Your task to perform on an android device: Go to battery settings Image 0: 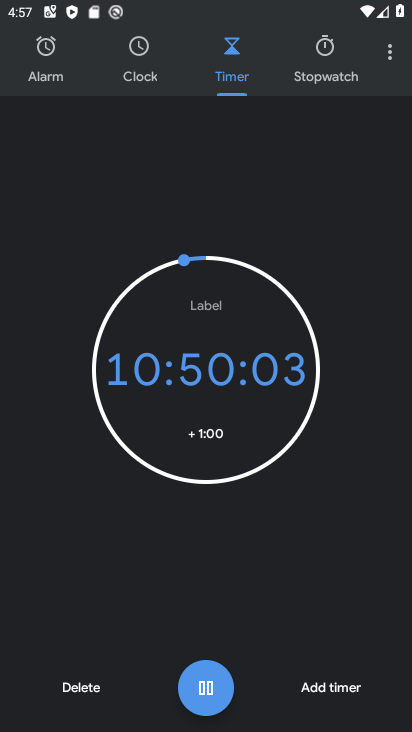
Step 0: drag from (294, 586) to (217, 212)
Your task to perform on an android device: Go to battery settings Image 1: 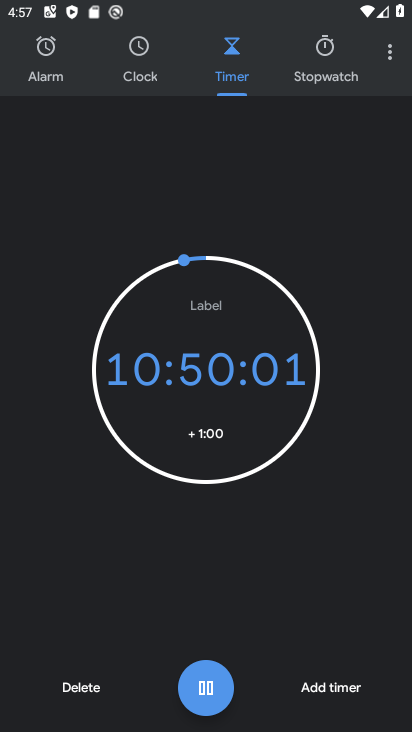
Step 1: press home button
Your task to perform on an android device: Go to battery settings Image 2: 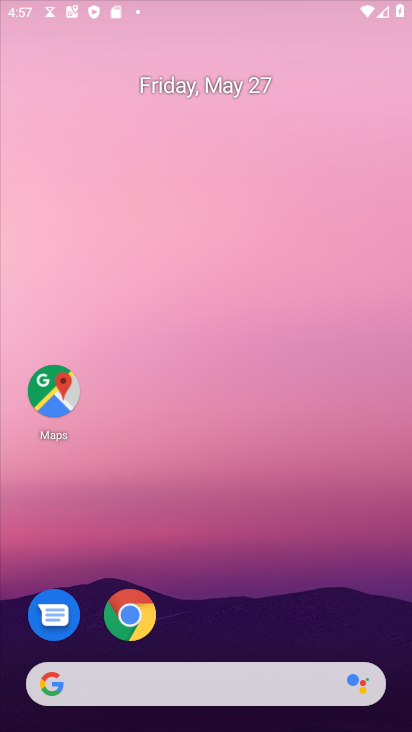
Step 2: drag from (325, 551) to (151, 1)
Your task to perform on an android device: Go to battery settings Image 3: 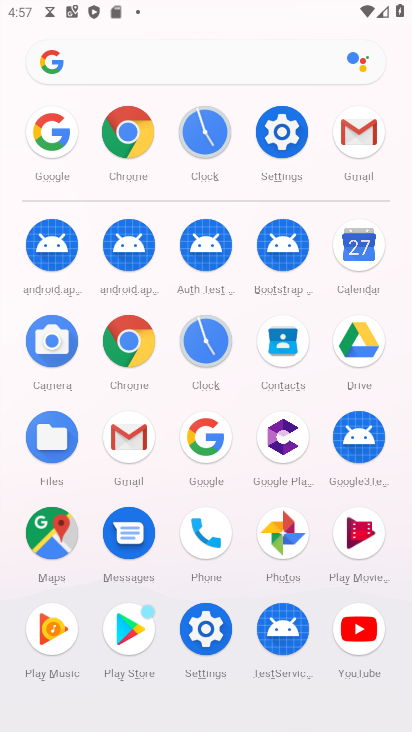
Step 3: click (283, 161)
Your task to perform on an android device: Go to battery settings Image 4: 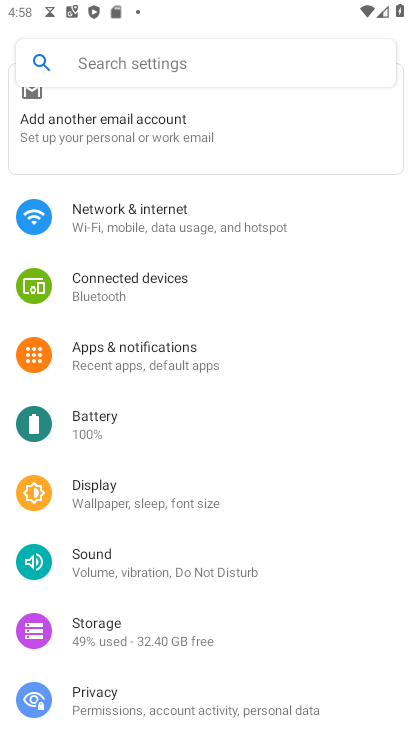
Step 4: click (154, 431)
Your task to perform on an android device: Go to battery settings Image 5: 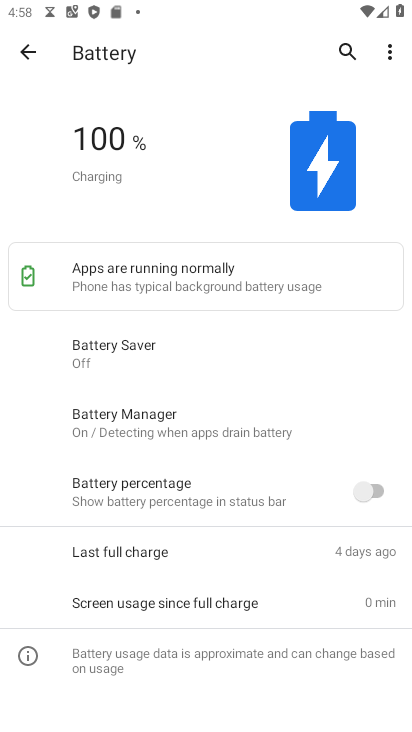
Step 5: task complete